Your task to perform on an android device: Go to Amazon Image 0: 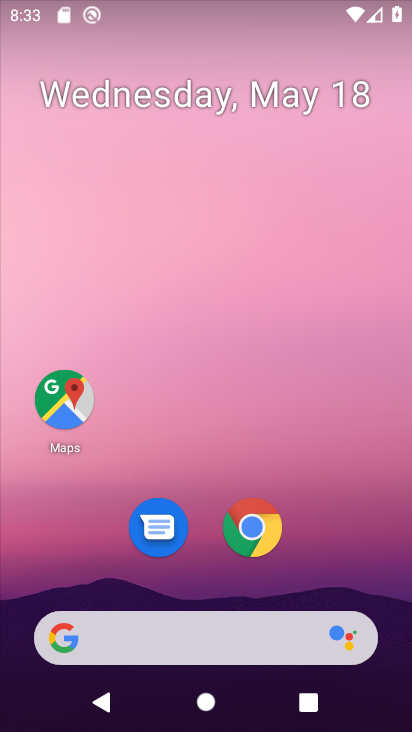
Step 0: drag from (306, 572) to (297, 0)
Your task to perform on an android device: Go to Amazon Image 1: 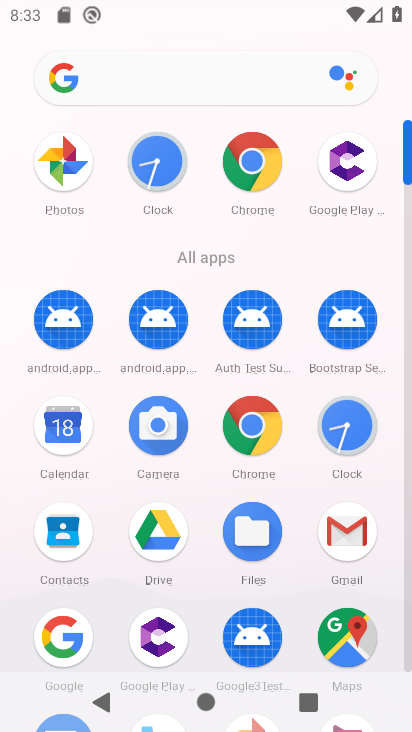
Step 1: click (240, 201)
Your task to perform on an android device: Go to Amazon Image 2: 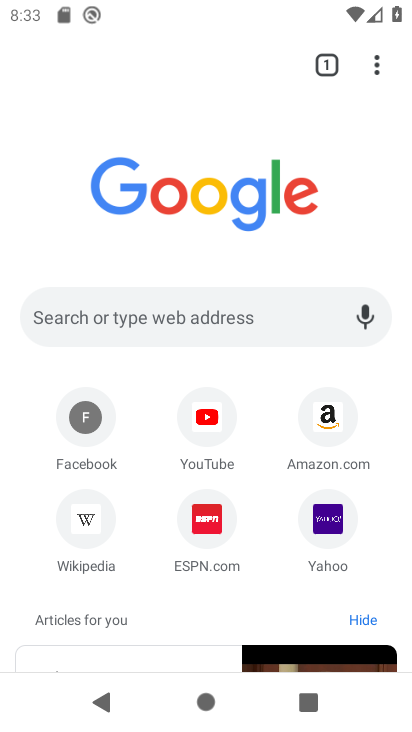
Step 2: click (338, 426)
Your task to perform on an android device: Go to Amazon Image 3: 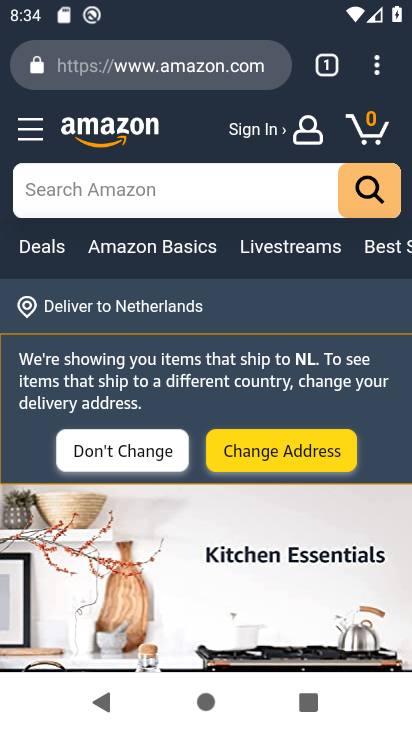
Step 3: task complete